Your task to perform on an android device: turn off smart reply in the gmail app Image 0: 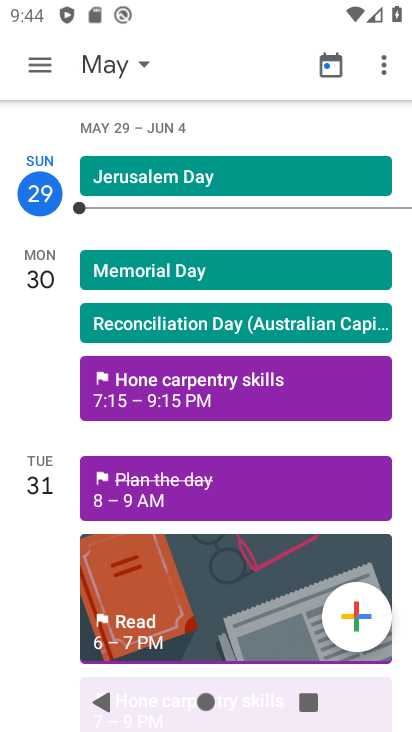
Step 0: press home button
Your task to perform on an android device: turn off smart reply in the gmail app Image 1: 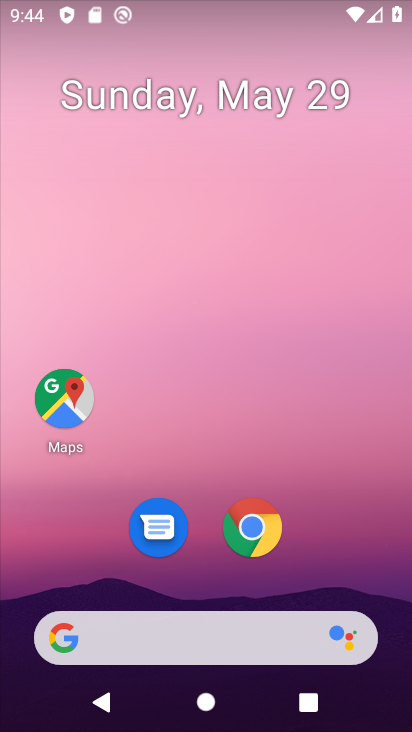
Step 1: drag from (317, 470) to (260, 168)
Your task to perform on an android device: turn off smart reply in the gmail app Image 2: 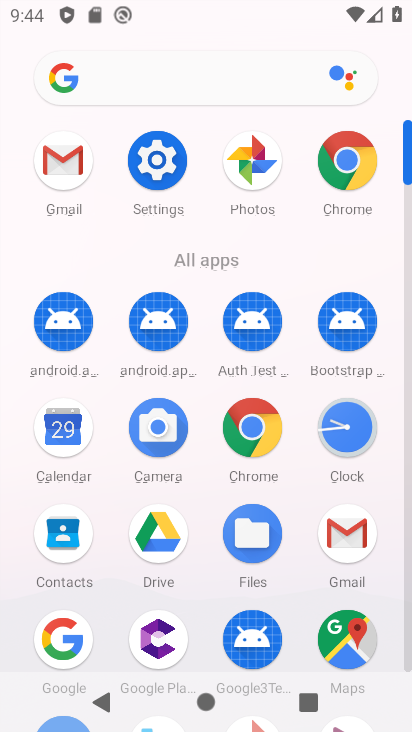
Step 2: click (66, 163)
Your task to perform on an android device: turn off smart reply in the gmail app Image 3: 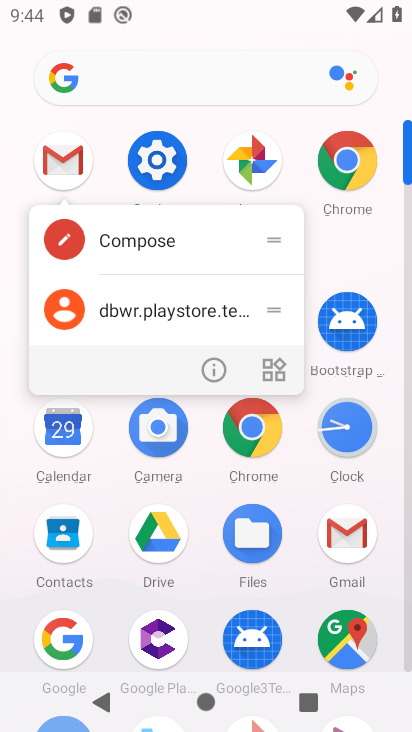
Step 3: click (66, 163)
Your task to perform on an android device: turn off smart reply in the gmail app Image 4: 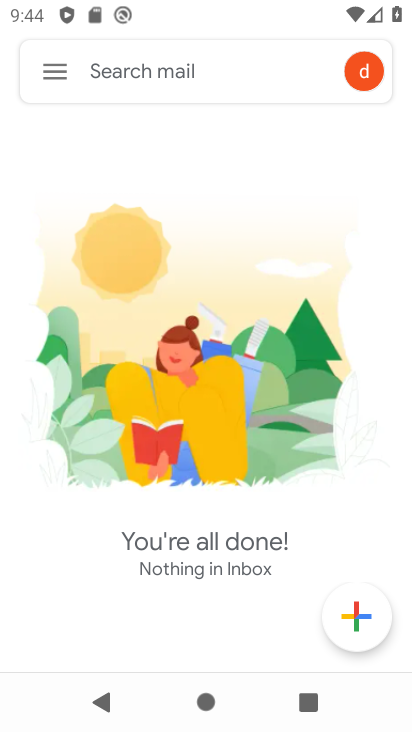
Step 4: click (67, 62)
Your task to perform on an android device: turn off smart reply in the gmail app Image 5: 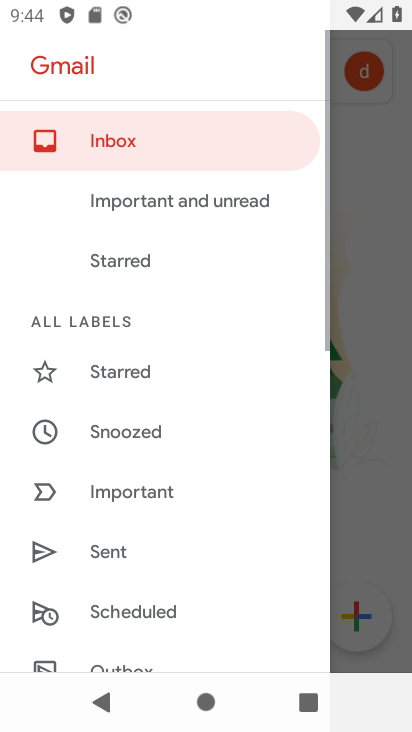
Step 5: drag from (153, 643) to (255, 6)
Your task to perform on an android device: turn off smart reply in the gmail app Image 6: 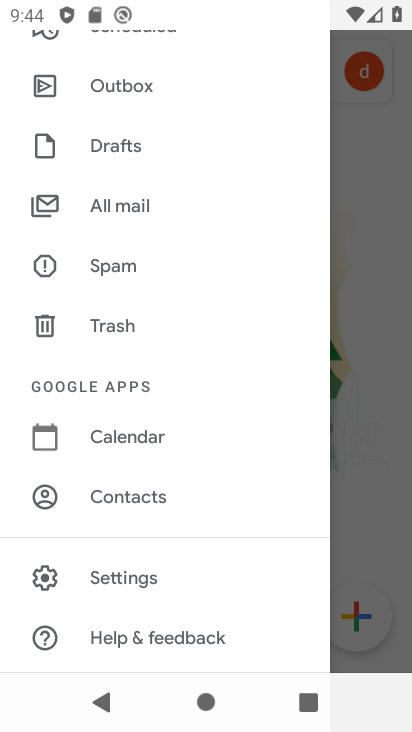
Step 6: click (115, 593)
Your task to perform on an android device: turn off smart reply in the gmail app Image 7: 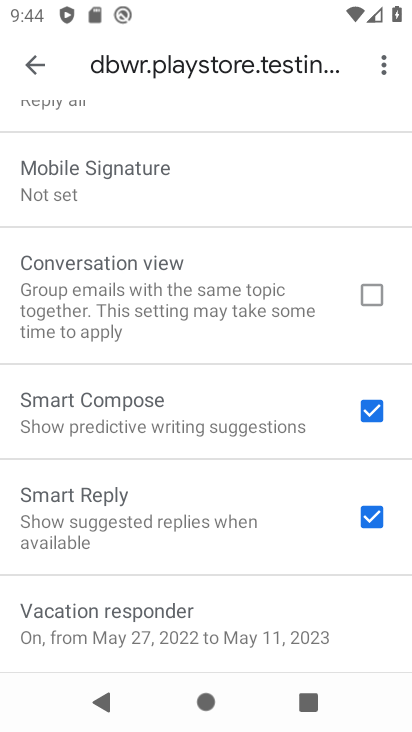
Step 7: drag from (146, 629) to (201, 308)
Your task to perform on an android device: turn off smart reply in the gmail app Image 8: 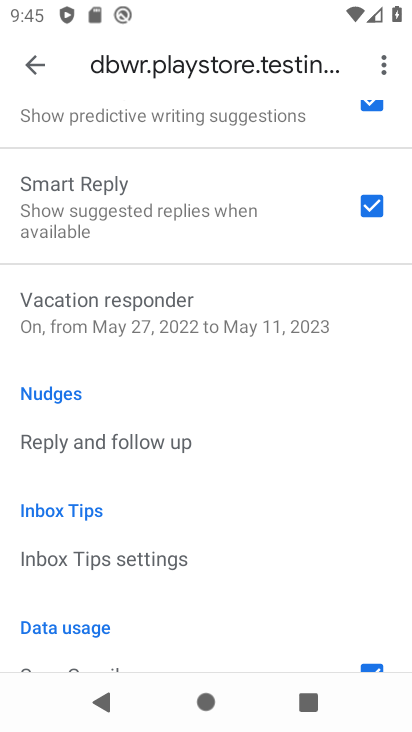
Step 8: click (364, 205)
Your task to perform on an android device: turn off smart reply in the gmail app Image 9: 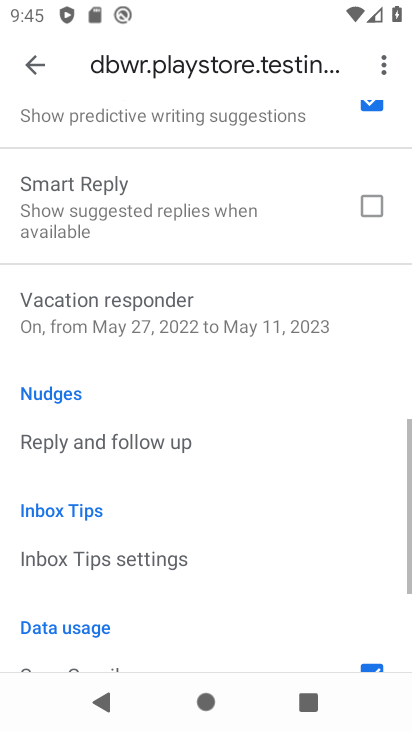
Step 9: task complete